Your task to perform on an android device: move a message to another label in the gmail app Image 0: 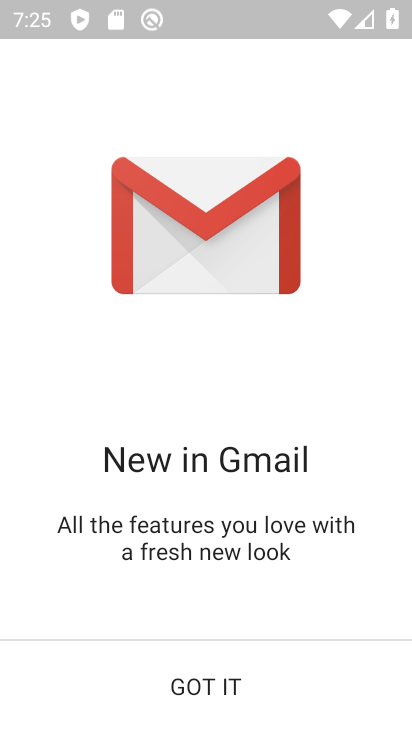
Step 0: press home button
Your task to perform on an android device: move a message to another label in the gmail app Image 1: 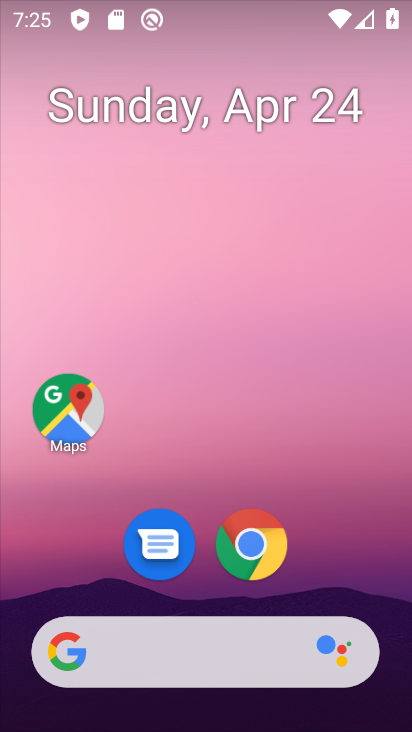
Step 1: drag from (184, 662) to (323, 236)
Your task to perform on an android device: move a message to another label in the gmail app Image 2: 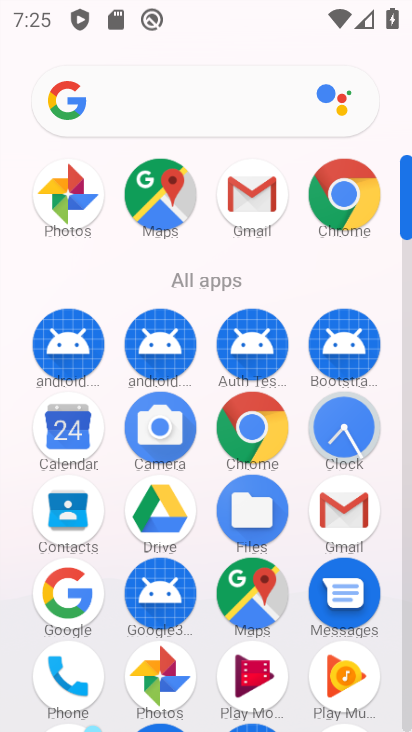
Step 2: click (256, 207)
Your task to perform on an android device: move a message to another label in the gmail app Image 3: 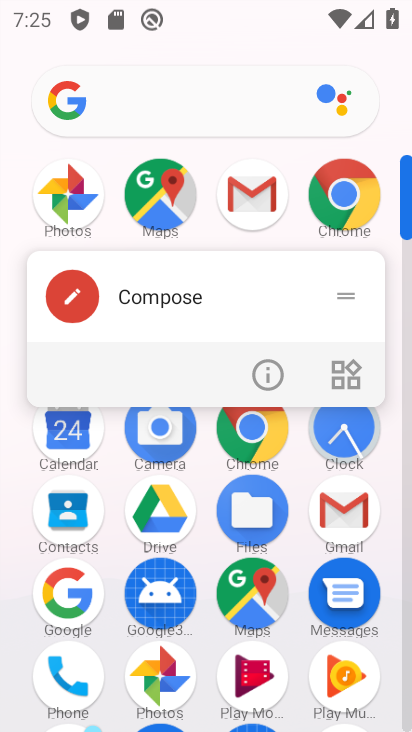
Step 3: click (255, 197)
Your task to perform on an android device: move a message to another label in the gmail app Image 4: 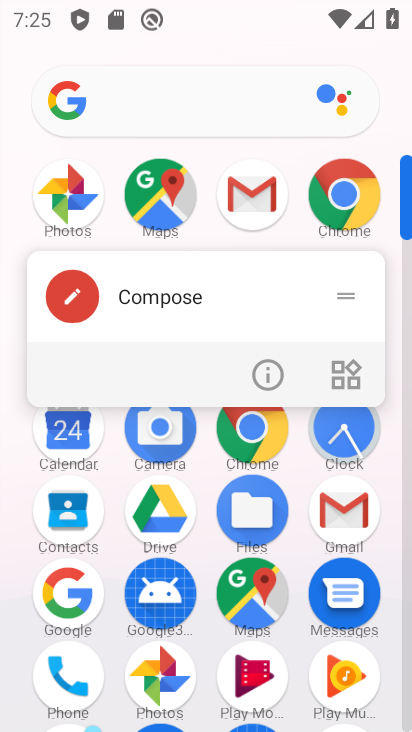
Step 4: click (248, 209)
Your task to perform on an android device: move a message to another label in the gmail app Image 5: 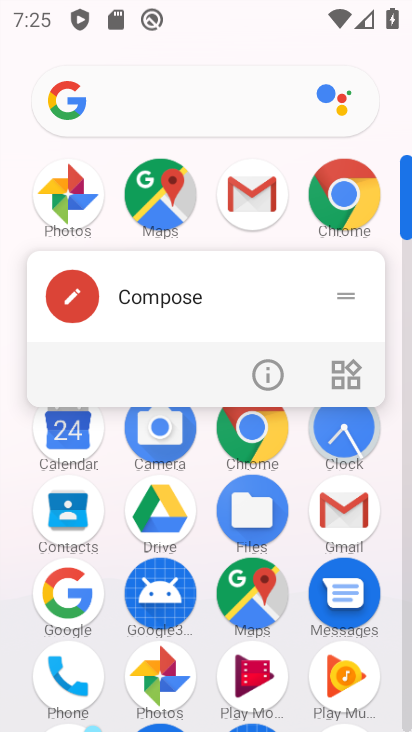
Step 5: click (239, 200)
Your task to perform on an android device: move a message to another label in the gmail app Image 6: 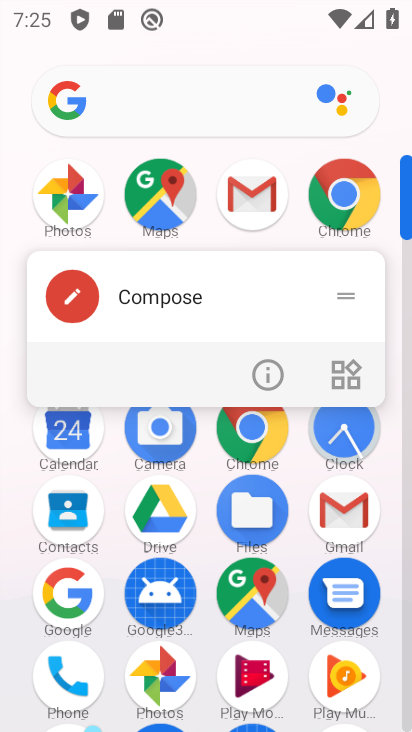
Step 6: click (249, 196)
Your task to perform on an android device: move a message to another label in the gmail app Image 7: 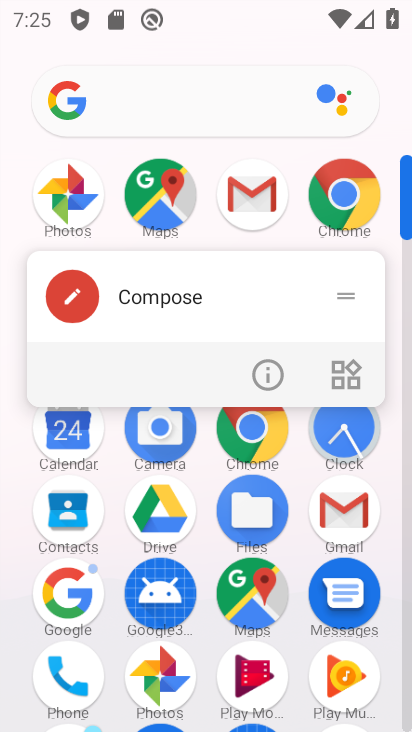
Step 7: click (249, 196)
Your task to perform on an android device: move a message to another label in the gmail app Image 8: 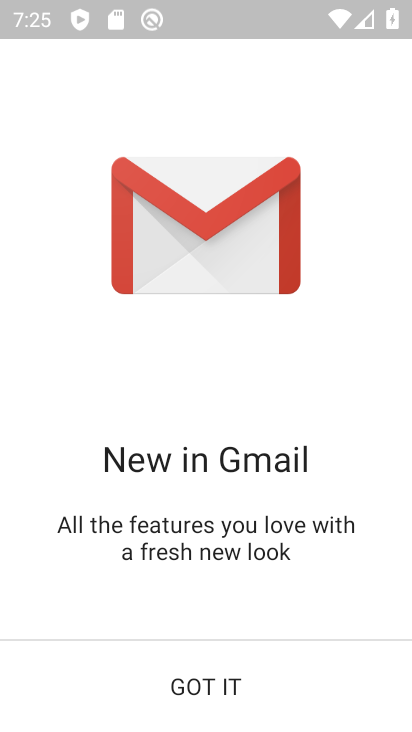
Step 8: click (201, 681)
Your task to perform on an android device: move a message to another label in the gmail app Image 9: 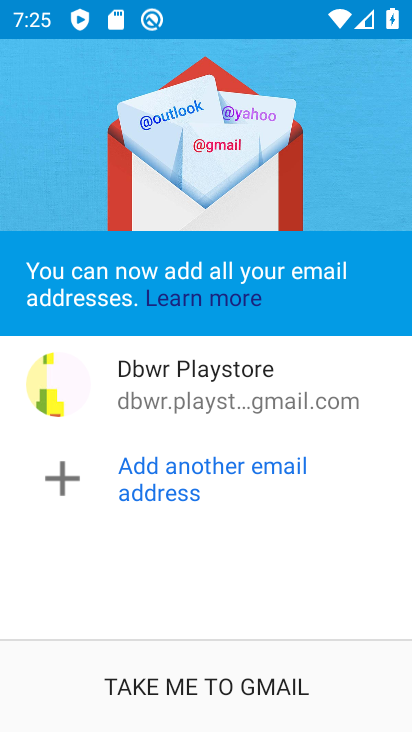
Step 9: click (201, 681)
Your task to perform on an android device: move a message to another label in the gmail app Image 10: 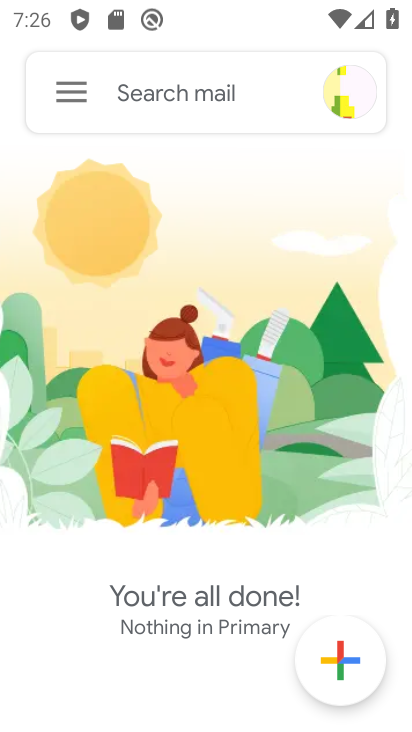
Step 10: click (67, 89)
Your task to perform on an android device: move a message to another label in the gmail app Image 11: 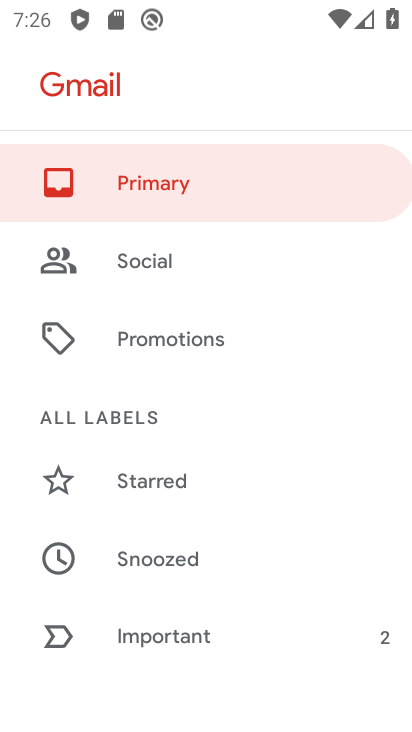
Step 11: drag from (240, 587) to (295, 160)
Your task to perform on an android device: move a message to another label in the gmail app Image 12: 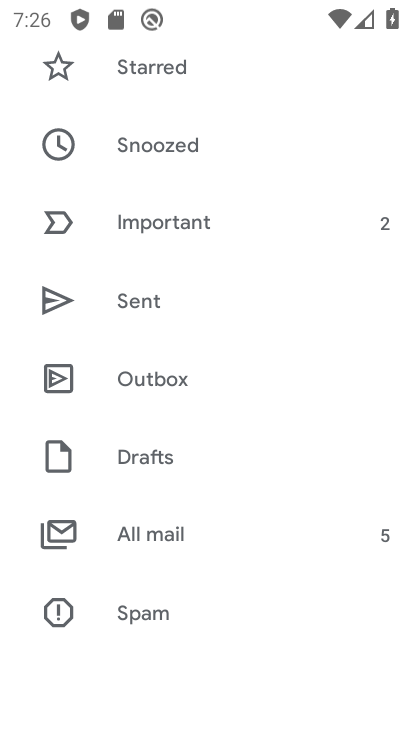
Step 12: click (159, 534)
Your task to perform on an android device: move a message to another label in the gmail app Image 13: 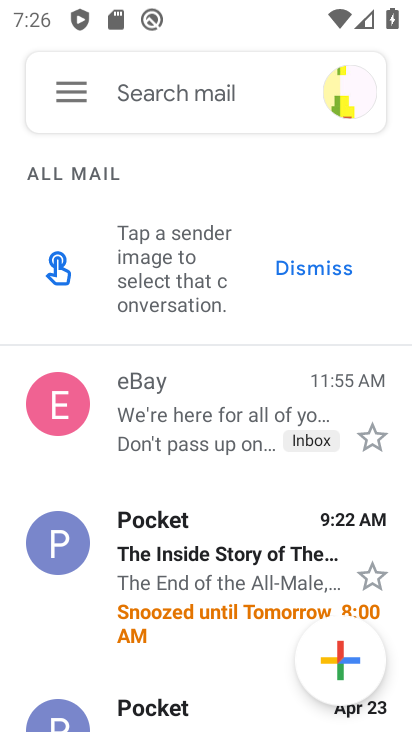
Step 13: drag from (221, 460) to (327, 240)
Your task to perform on an android device: move a message to another label in the gmail app Image 14: 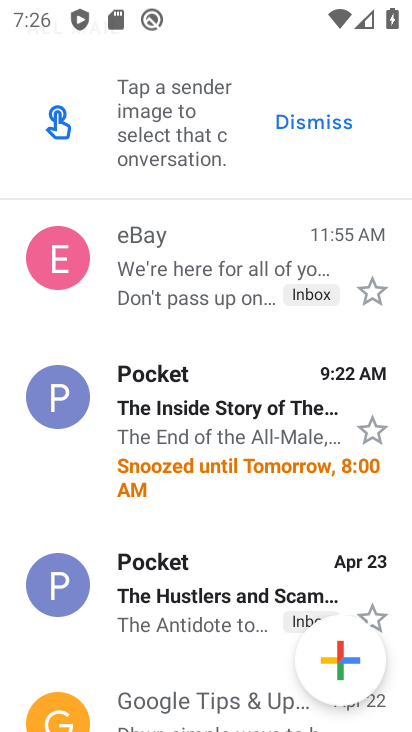
Step 14: click (229, 417)
Your task to perform on an android device: move a message to another label in the gmail app Image 15: 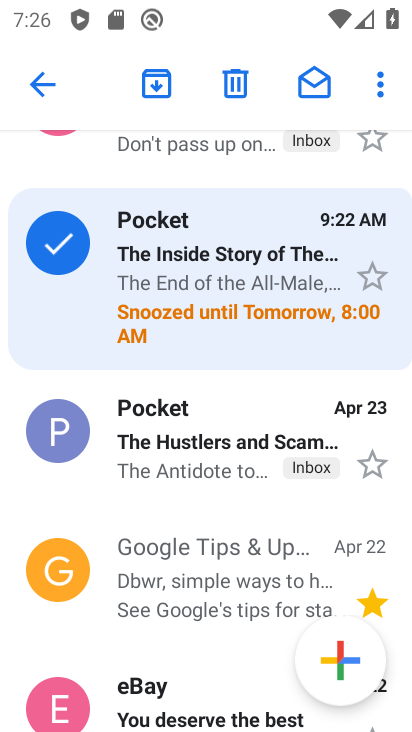
Step 15: click (198, 269)
Your task to perform on an android device: move a message to another label in the gmail app Image 16: 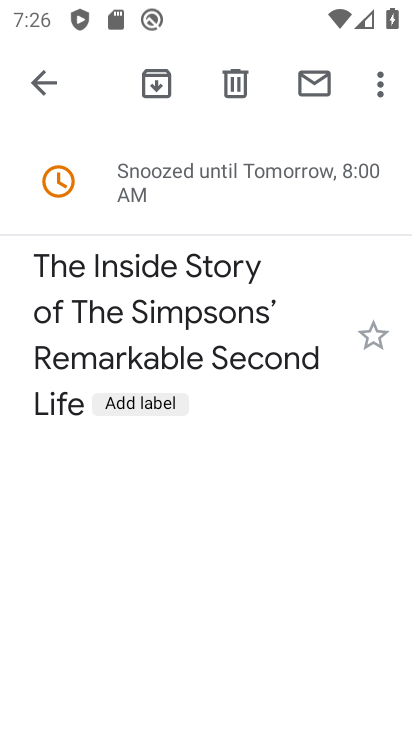
Step 16: click (156, 400)
Your task to perform on an android device: move a message to another label in the gmail app Image 17: 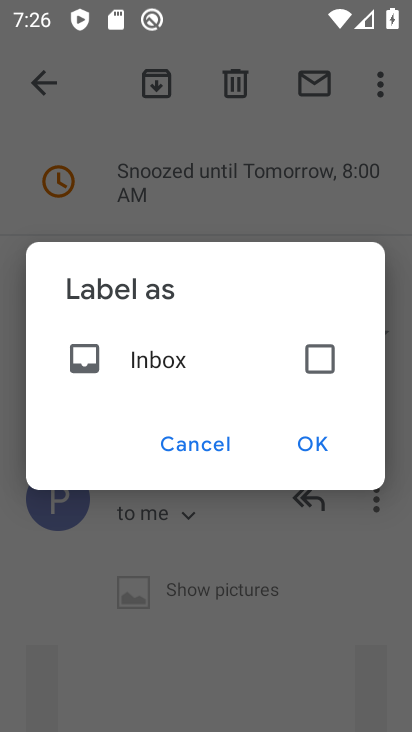
Step 17: click (320, 357)
Your task to perform on an android device: move a message to another label in the gmail app Image 18: 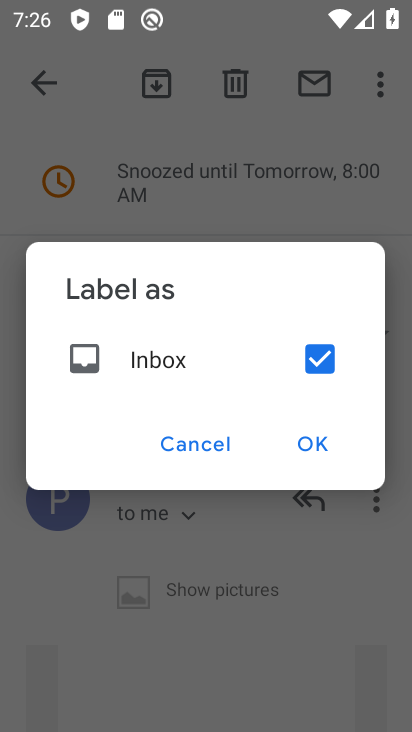
Step 18: click (314, 440)
Your task to perform on an android device: move a message to another label in the gmail app Image 19: 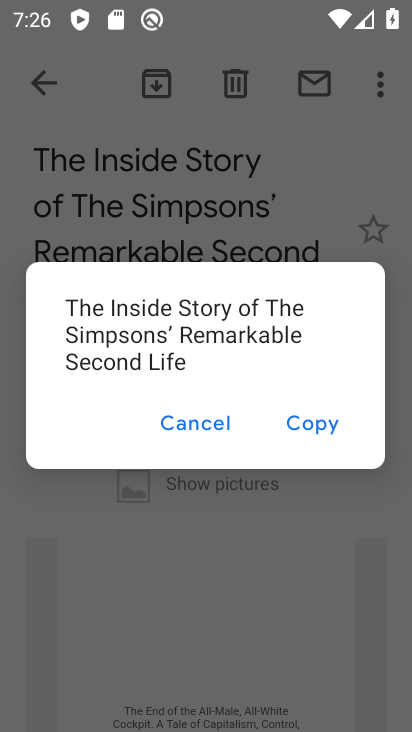
Step 19: click (198, 430)
Your task to perform on an android device: move a message to another label in the gmail app Image 20: 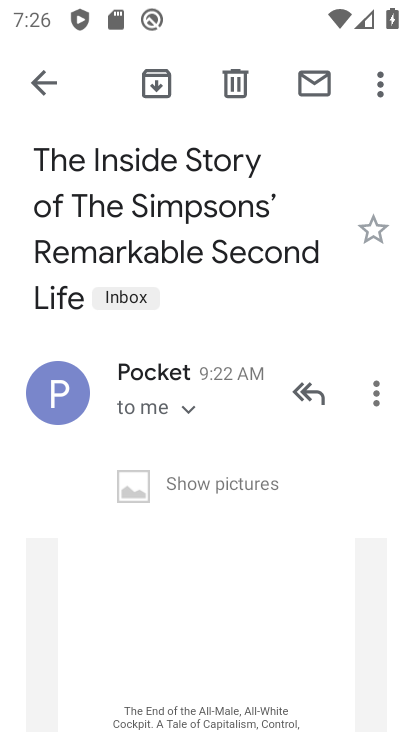
Step 20: task complete